Your task to perform on an android device: set an alarm Image 0: 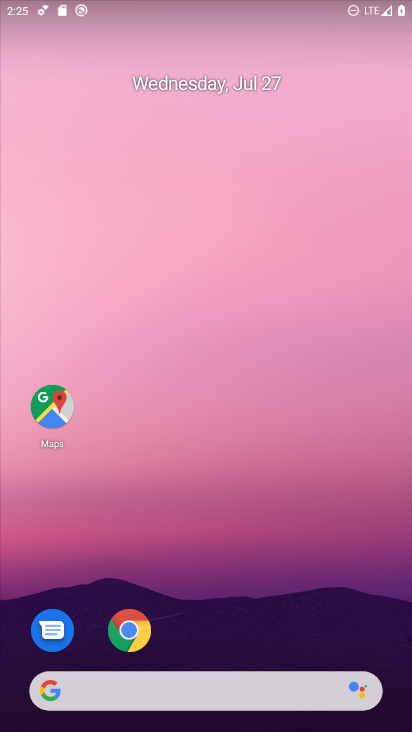
Step 0: drag from (321, 632) to (330, 119)
Your task to perform on an android device: set an alarm Image 1: 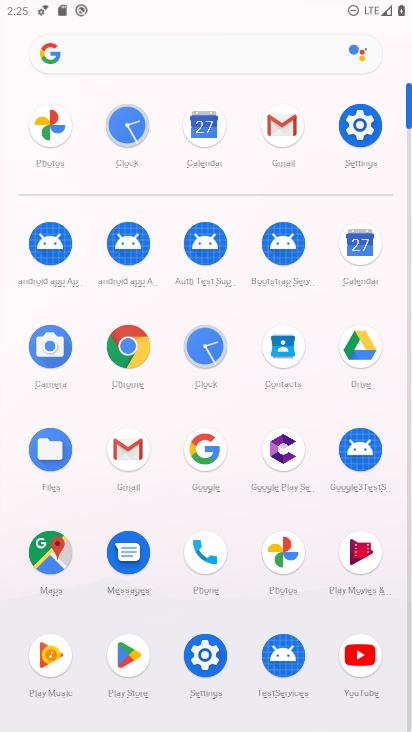
Step 1: click (205, 349)
Your task to perform on an android device: set an alarm Image 2: 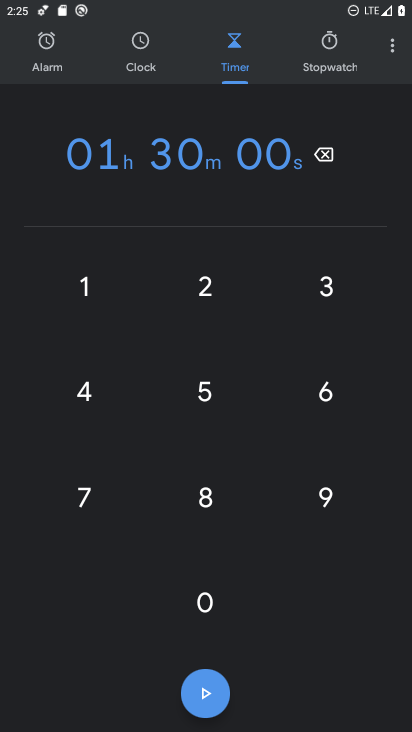
Step 2: click (52, 50)
Your task to perform on an android device: set an alarm Image 3: 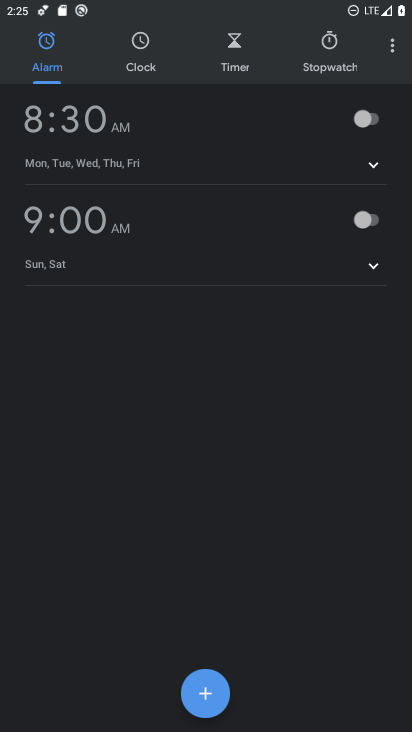
Step 3: click (53, 214)
Your task to perform on an android device: set an alarm Image 4: 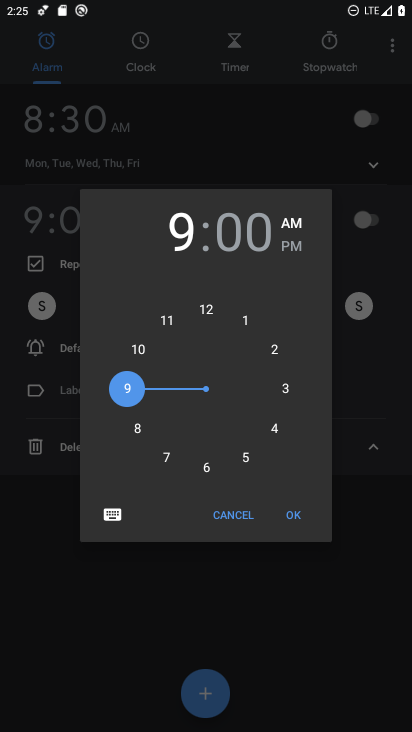
Step 4: click (207, 467)
Your task to perform on an android device: set an alarm Image 5: 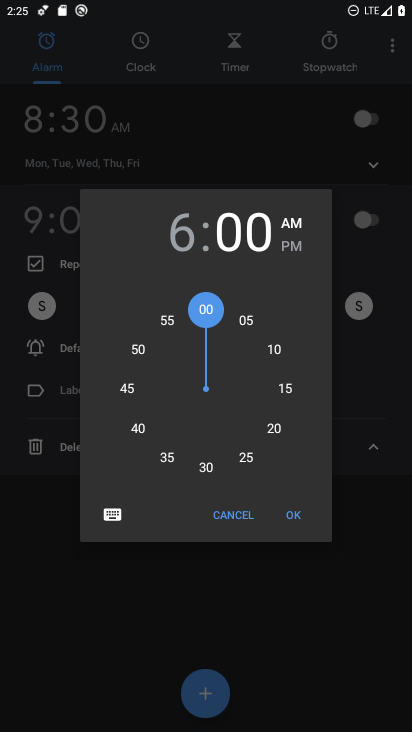
Step 5: click (294, 515)
Your task to perform on an android device: set an alarm Image 6: 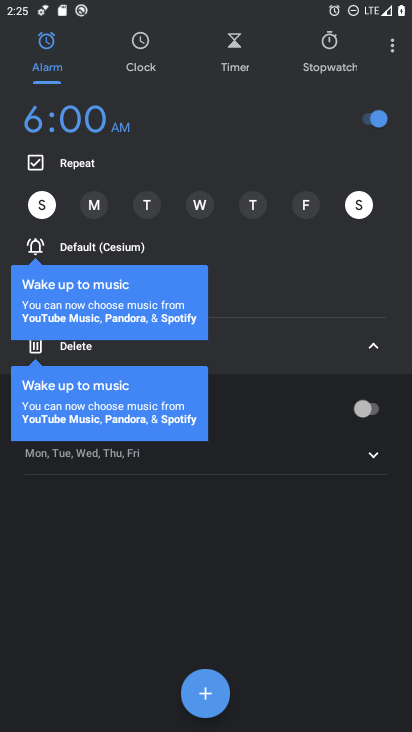
Step 6: click (97, 205)
Your task to perform on an android device: set an alarm Image 7: 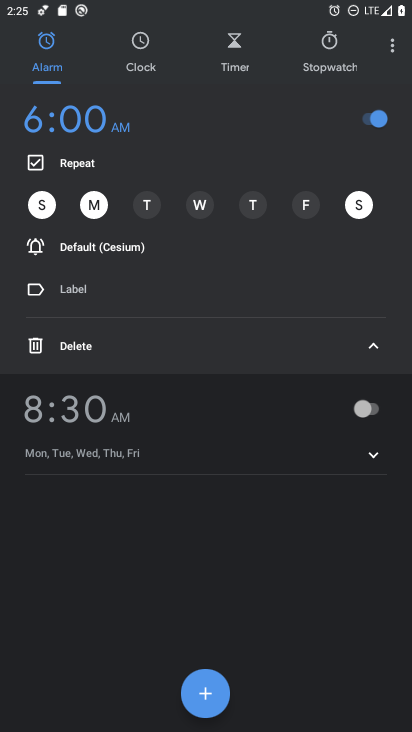
Step 7: click (154, 204)
Your task to perform on an android device: set an alarm Image 8: 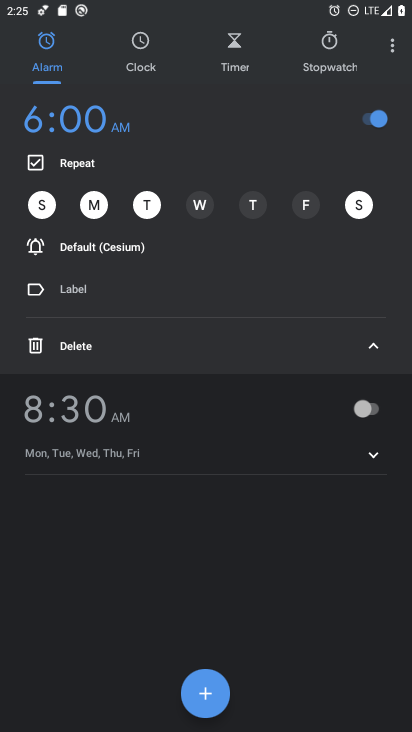
Step 8: click (202, 210)
Your task to perform on an android device: set an alarm Image 9: 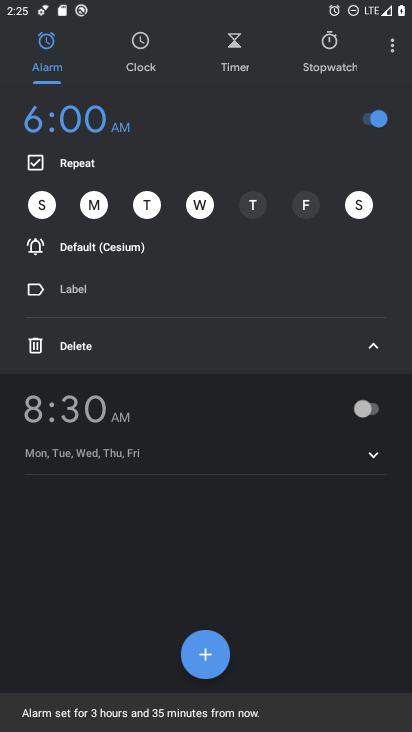
Step 9: click (252, 205)
Your task to perform on an android device: set an alarm Image 10: 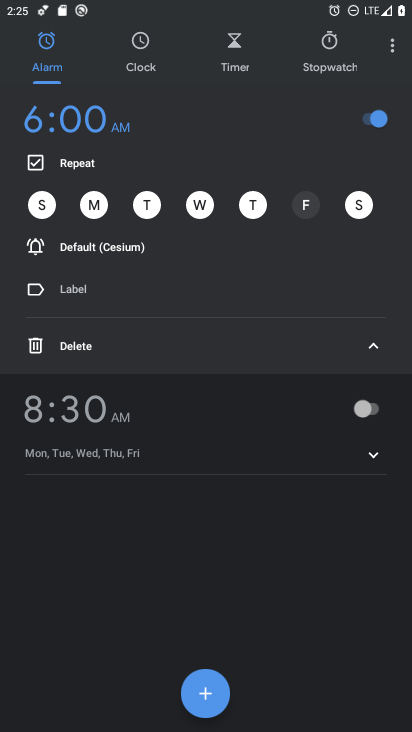
Step 10: click (307, 202)
Your task to perform on an android device: set an alarm Image 11: 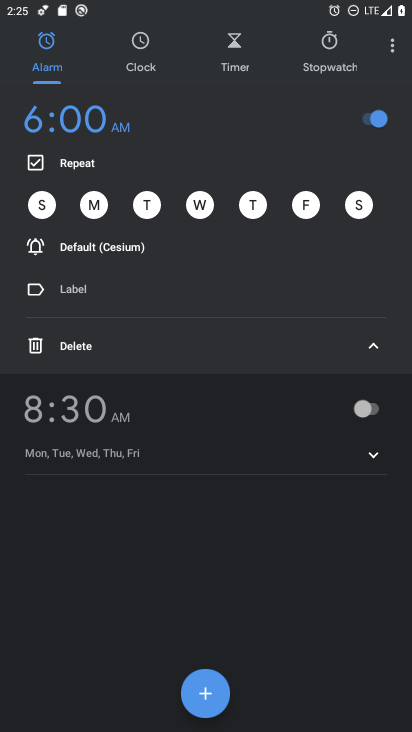
Step 11: click (37, 202)
Your task to perform on an android device: set an alarm Image 12: 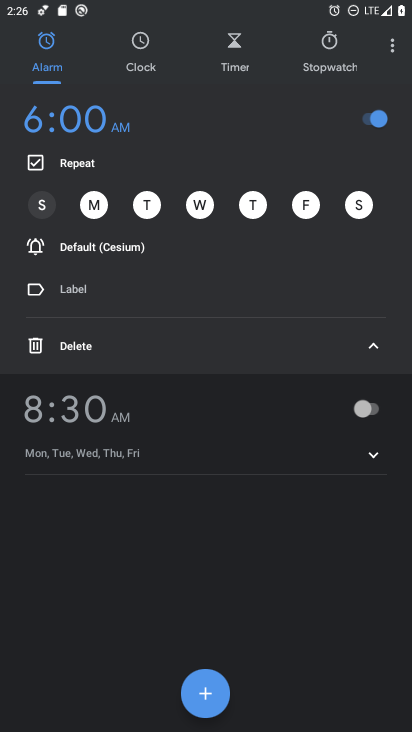
Step 12: click (373, 340)
Your task to perform on an android device: set an alarm Image 13: 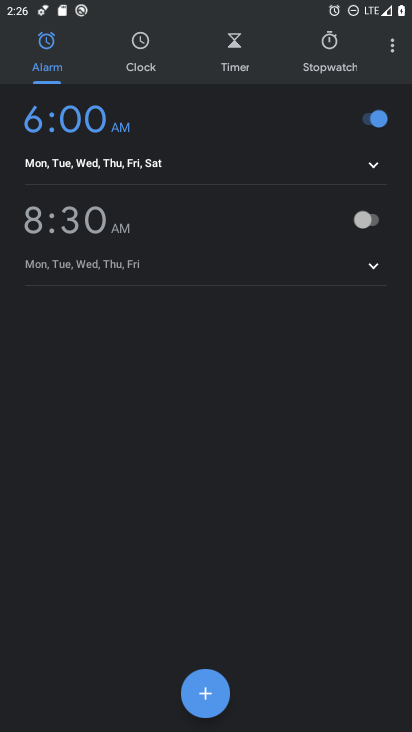
Step 13: task complete